Your task to perform on an android device: Open Amazon Image 0: 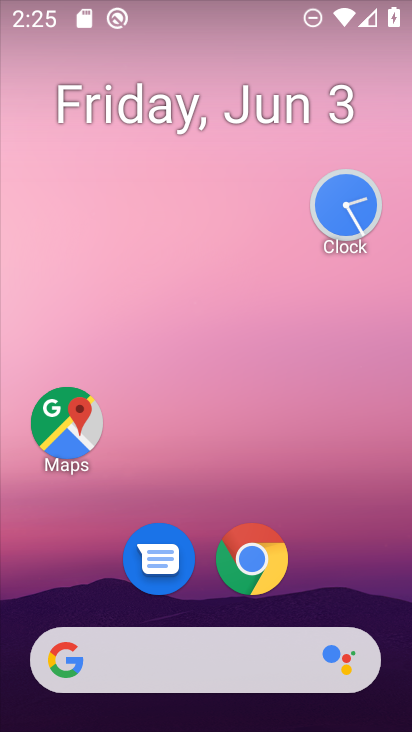
Step 0: click (259, 550)
Your task to perform on an android device: Open Amazon Image 1: 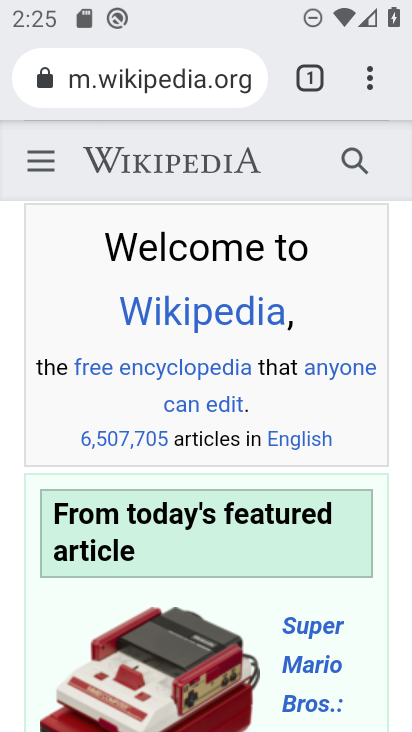
Step 1: click (309, 68)
Your task to perform on an android device: Open Amazon Image 2: 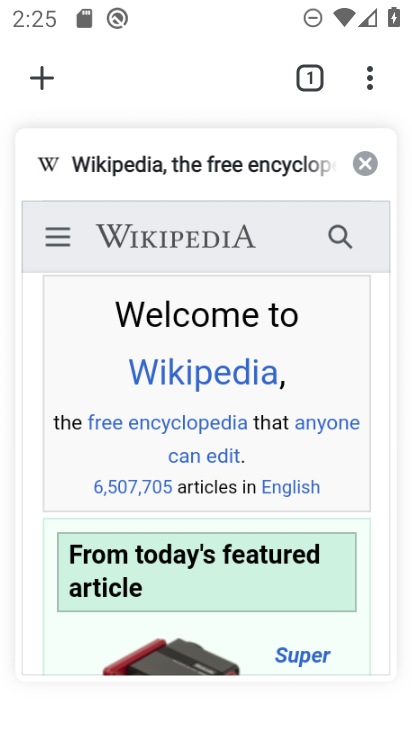
Step 2: click (354, 161)
Your task to perform on an android device: Open Amazon Image 3: 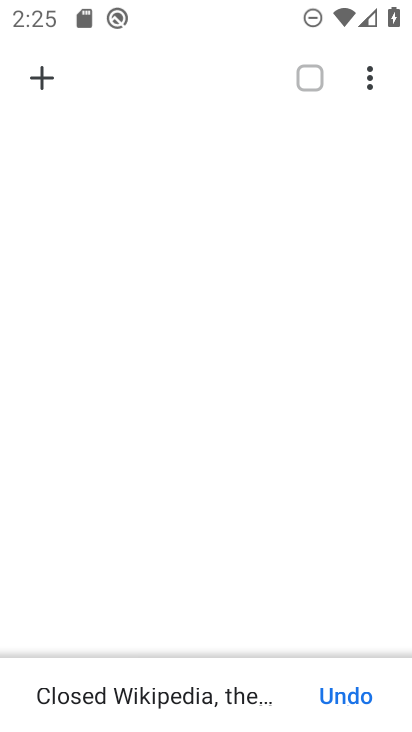
Step 3: click (37, 88)
Your task to perform on an android device: Open Amazon Image 4: 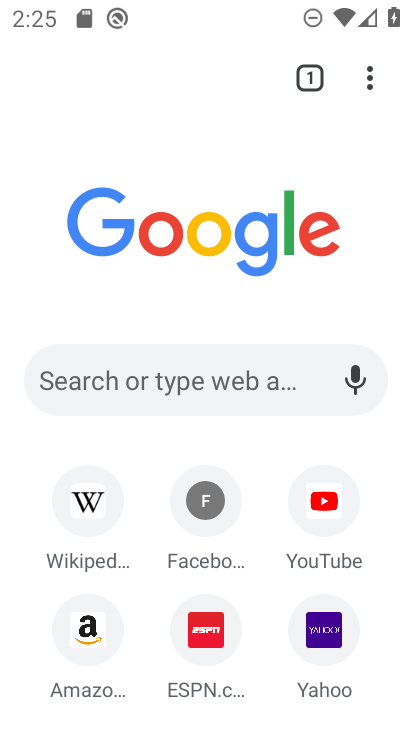
Step 4: click (96, 613)
Your task to perform on an android device: Open Amazon Image 5: 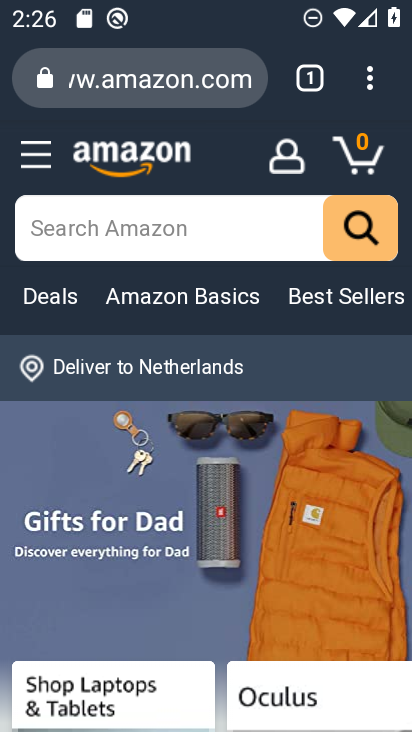
Step 5: task complete